Your task to perform on an android device: turn on wifi Image 0: 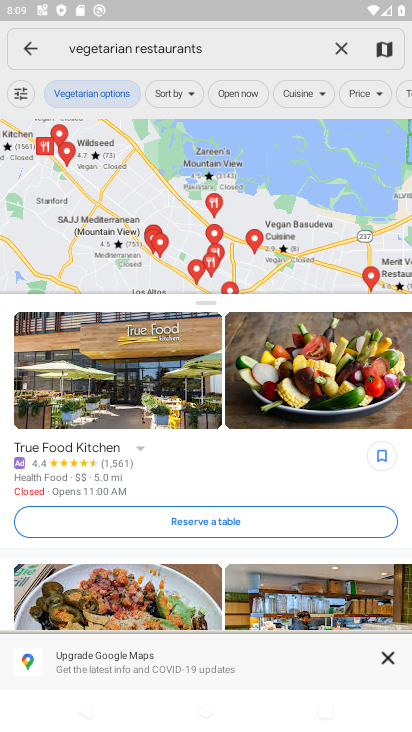
Step 0: press home button
Your task to perform on an android device: turn on wifi Image 1: 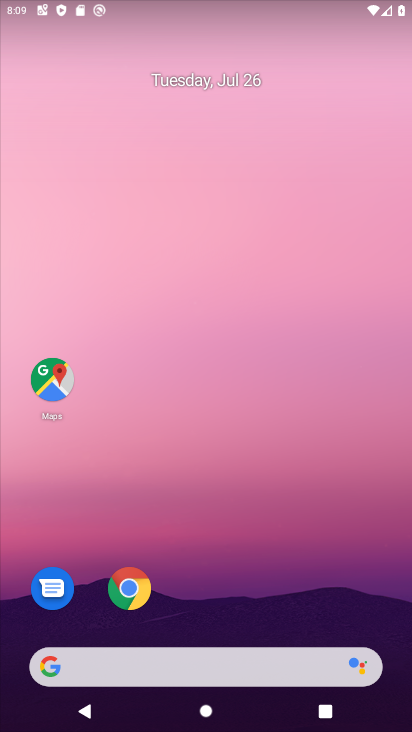
Step 1: task complete